Your task to perform on an android device: Open calendar and show me the third week of next month Image 0: 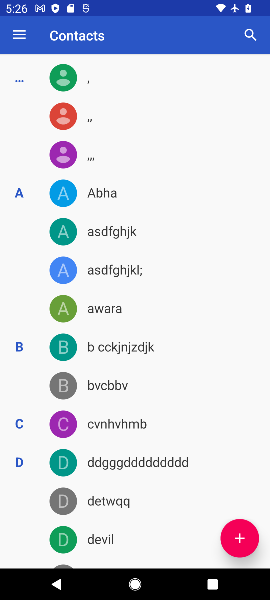
Step 0: press home button
Your task to perform on an android device: Open calendar and show me the third week of next month Image 1: 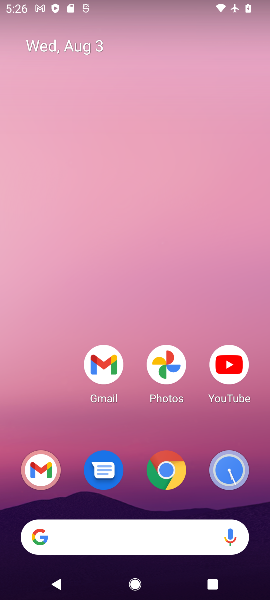
Step 1: drag from (201, 426) to (206, 106)
Your task to perform on an android device: Open calendar and show me the third week of next month Image 2: 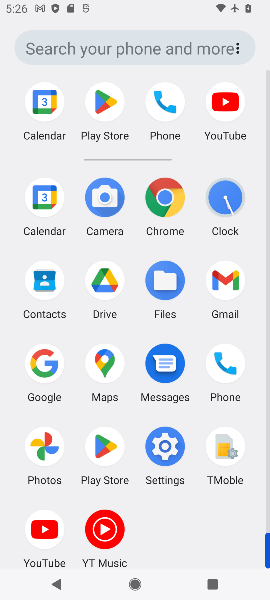
Step 2: click (54, 198)
Your task to perform on an android device: Open calendar and show me the third week of next month Image 3: 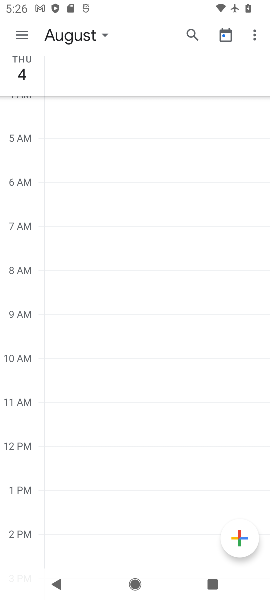
Step 3: click (70, 32)
Your task to perform on an android device: Open calendar and show me the third week of next month Image 4: 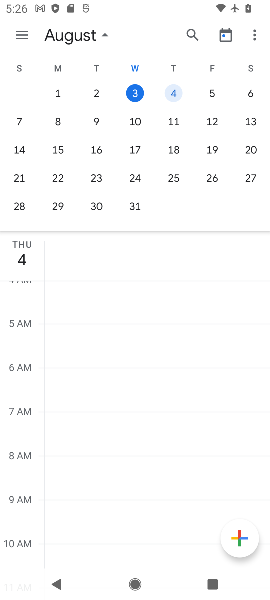
Step 4: drag from (240, 176) to (31, 161)
Your task to perform on an android device: Open calendar and show me the third week of next month Image 5: 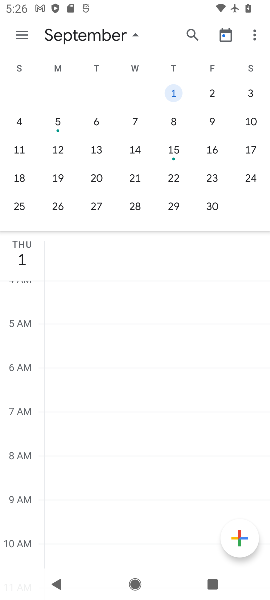
Step 5: click (58, 176)
Your task to perform on an android device: Open calendar and show me the third week of next month Image 6: 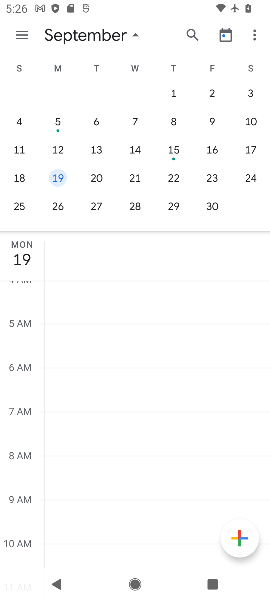
Step 6: click (21, 18)
Your task to perform on an android device: Open calendar and show me the third week of next month Image 7: 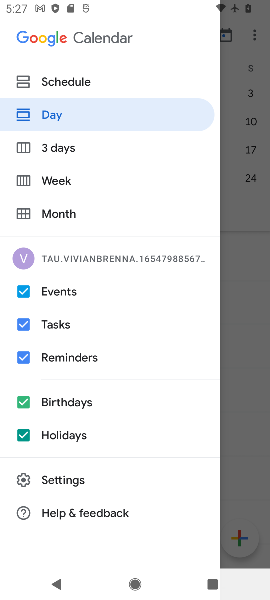
Step 7: click (58, 180)
Your task to perform on an android device: Open calendar and show me the third week of next month Image 8: 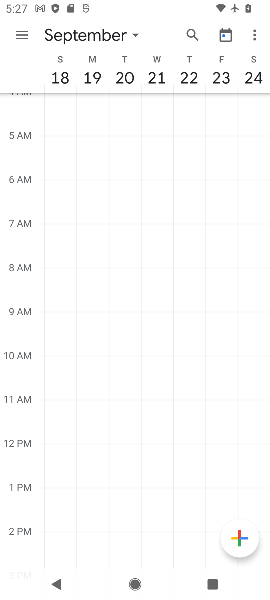
Step 8: task complete